Your task to perform on an android device: What's the weather going to be tomorrow? Image 0: 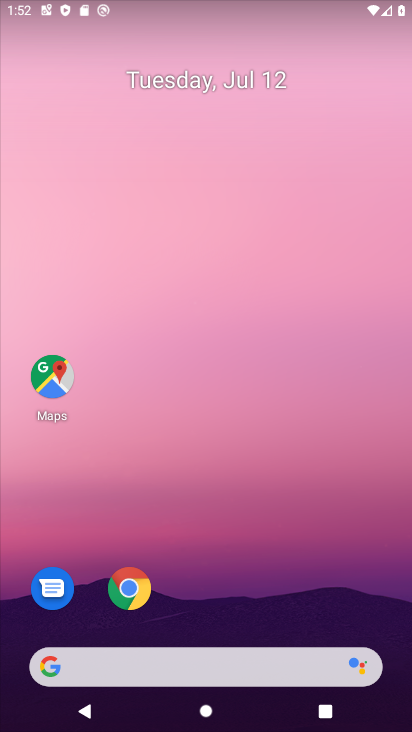
Step 0: click (114, 580)
Your task to perform on an android device: What's the weather going to be tomorrow? Image 1: 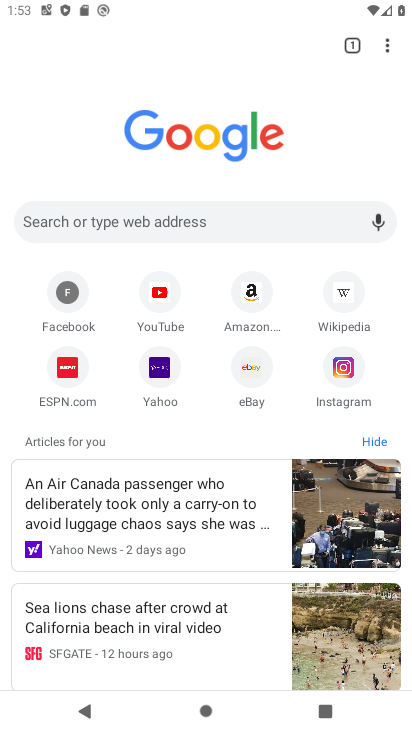
Step 1: click (195, 229)
Your task to perform on an android device: What's the weather going to be tomorrow? Image 2: 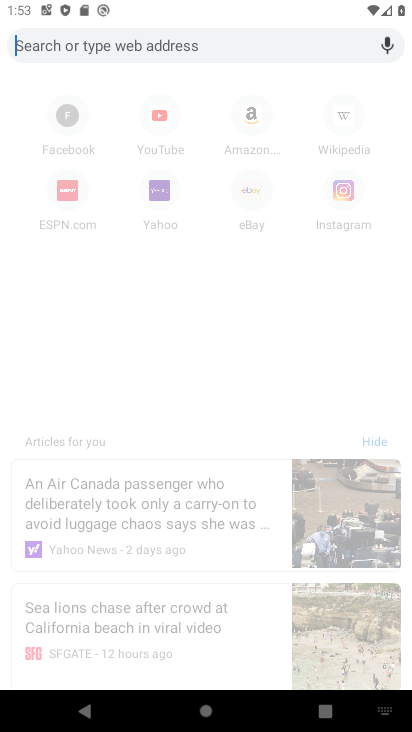
Step 2: type "weather tomorrow"
Your task to perform on an android device: What's the weather going to be tomorrow? Image 3: 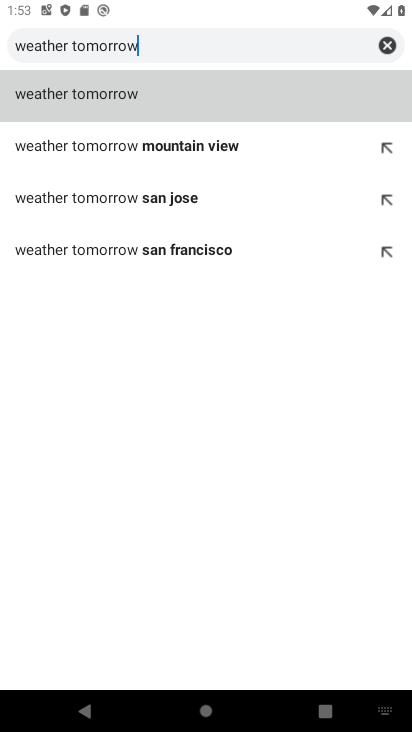
Step 3: click (115, 98)
Your task to perform on an android device: What's the weather going to be tomorrow? Image 4: 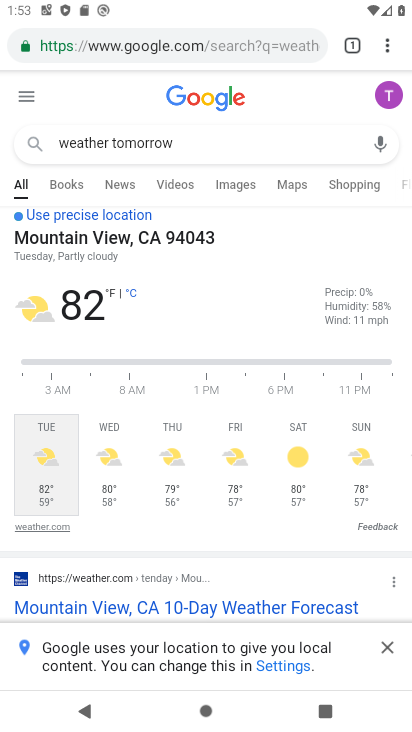
Step 4: task complete